Your task to perform on an android device: open chrome and create a bookmark for the current page Image 0: 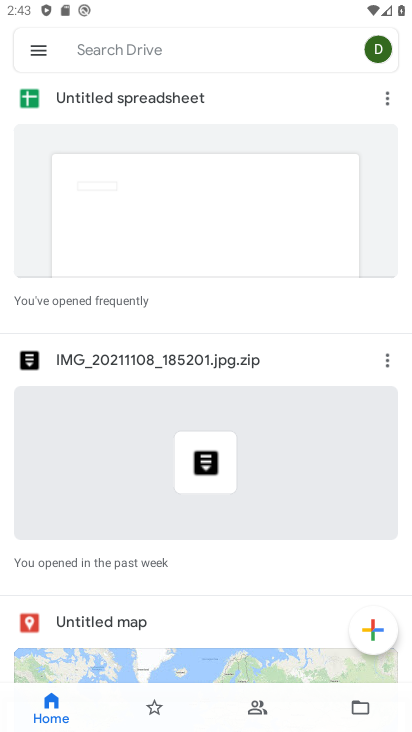
Step 0: press home button
Your task to perform on an android device: open chrome and create a bookmark for the current page Image 1: 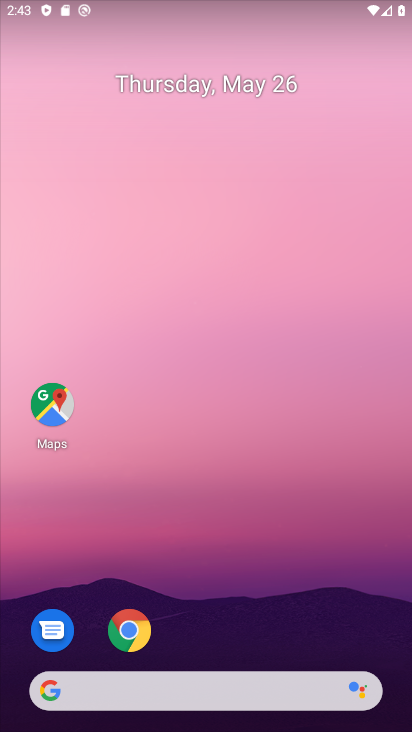
Step 1: click (128, 629)
Your task to perform on an android device: open chrome and create a bookmark for the current page Image 2: 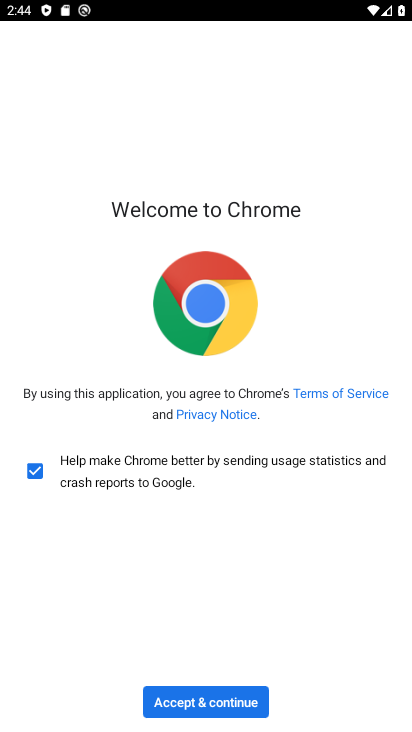
Step 2: click (194, 699)
Your task to perform on an android device: open chrome and create a bookmark for the current page Image 3: 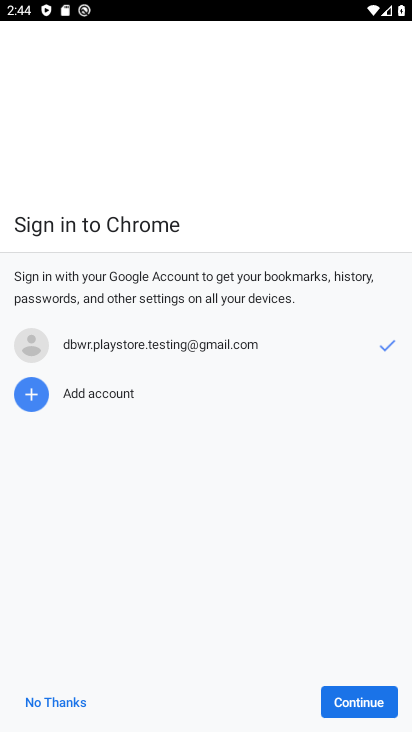
Step 3: click (355, 696)
Your task to perform on an android device: open chrome and create a bookmark for the current page Image 4: 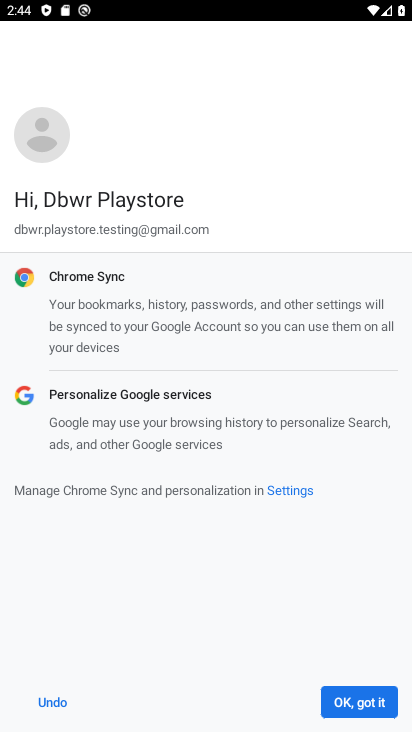
Step 4: click (355, 696)
Your task to perform on an android device: open chrome and create a bookmark for the current page Image 5: 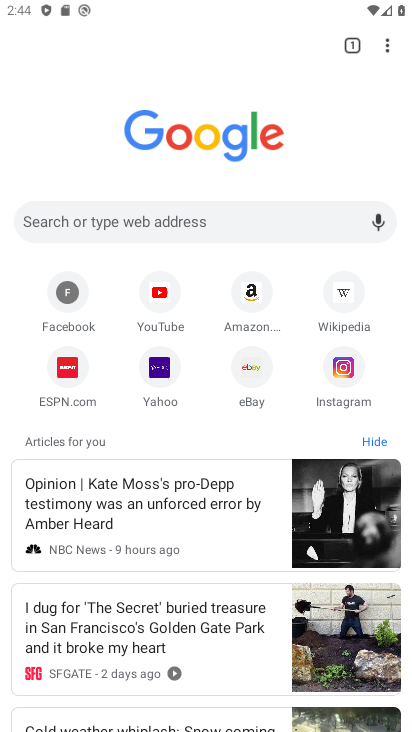
Step 5: click (387, 46)
Your task to perform on an android device: open chrome and create a bookmark for the current page Image 6: 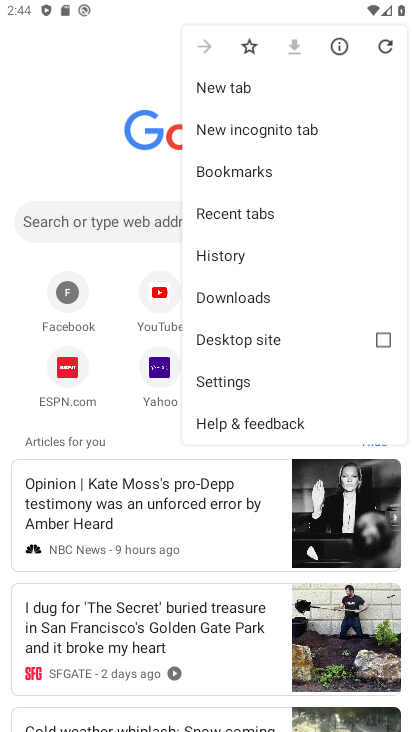
Step 6: click (251, 49)
Your task to perform on an android device: open chrome and create a bookmark for the current page Image 7: 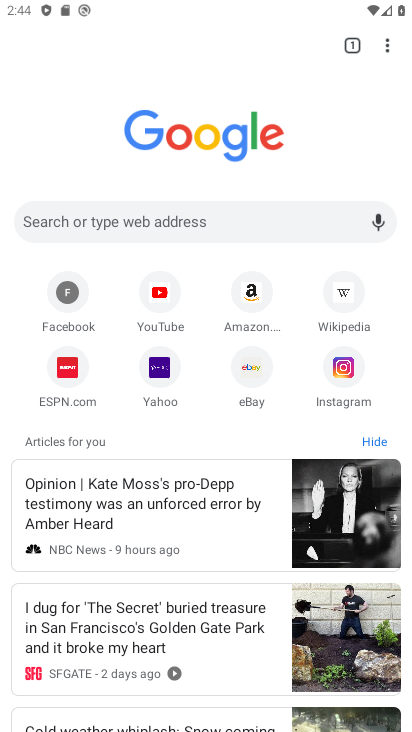
Step 7: task complete